Your task to perform on an android device: Open notification settings Image 0: 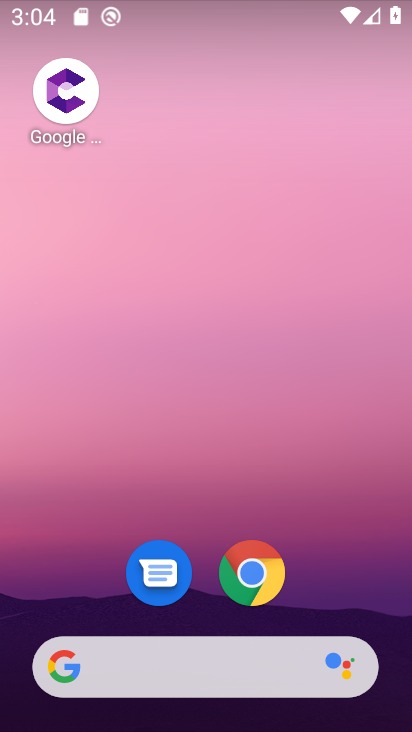
Step 0: drag from (304, 576) to (189, 14)
Your task to perform on an android device: Open notification settings Image 1: 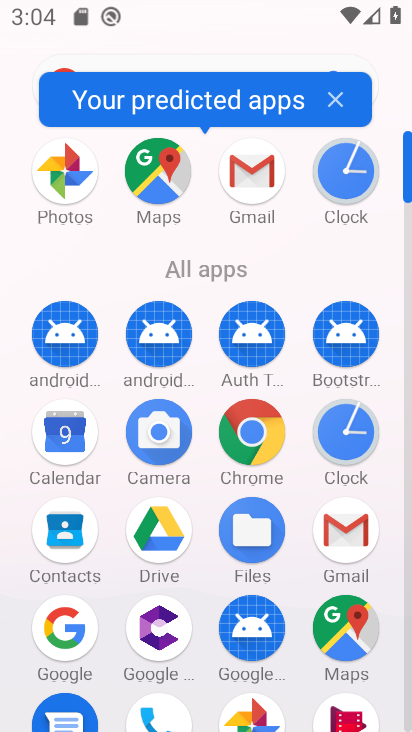
Step 1: drag from (216, 580) to (92, 249)
Your task to perform on an android device: Open notification settings Image 2: 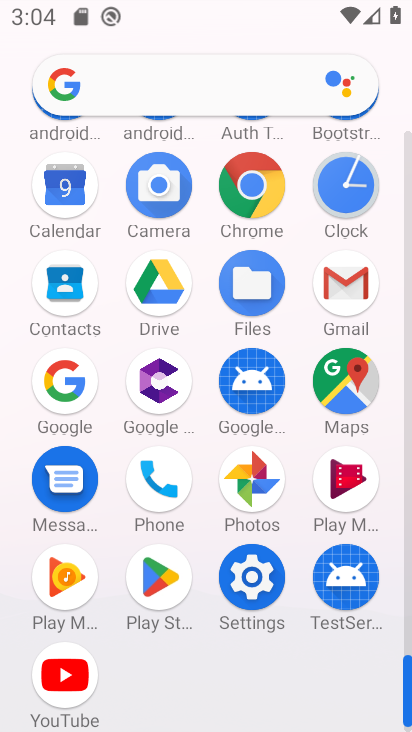
Step 2: click (252, 561)
Your task to perform on an android device: Open notification settings Image 3: 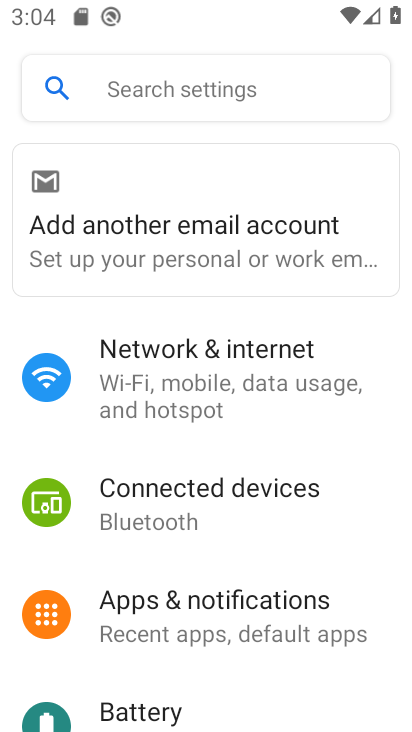
Step 3: click (243, 613)
Your task to perform on an android device: Open notification settings Image 4: 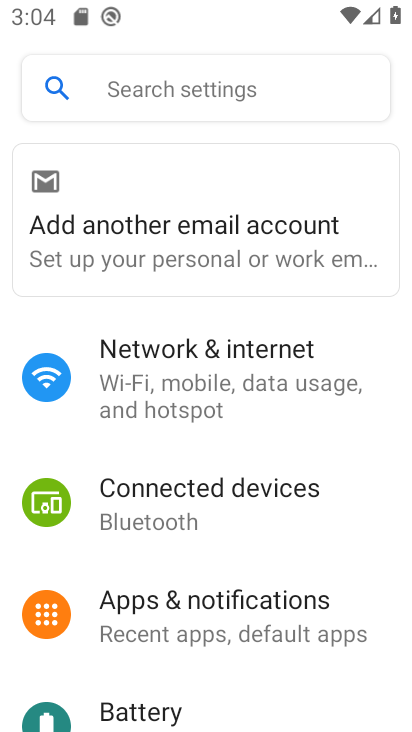
Step 4: click (243, 613)
Your task to perform on an android device: Open notification settings Image 5: 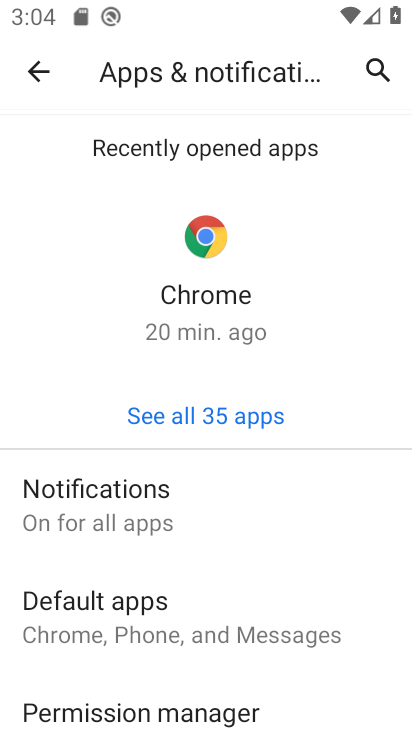
Step 5: task complete